Your task to perform on an android device: read, delete, or share a saved page in the chrome app Image 0: 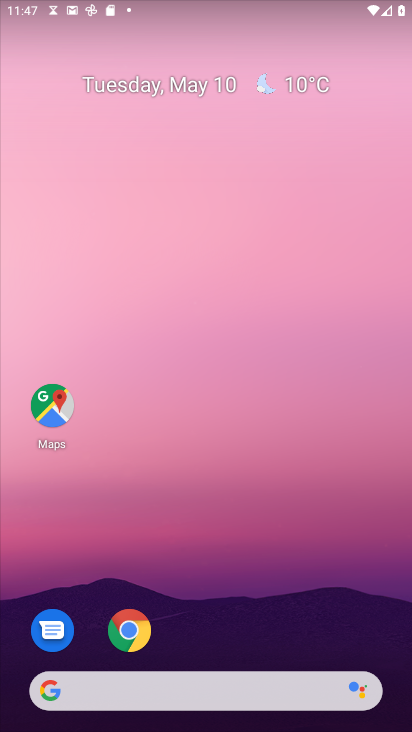
Step 0: drag from (235, 598) to (210, 26)
Your task to perform on an android device: read, delete, or share a saved page in the chrome app Image 1: 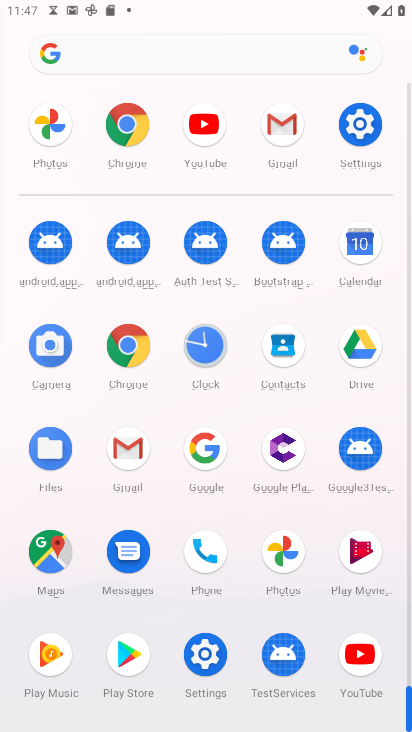
Step 1: click (123, 125)
Your task to perform on an android device: read, delete, or share a saved page in the chrome app Image 2: 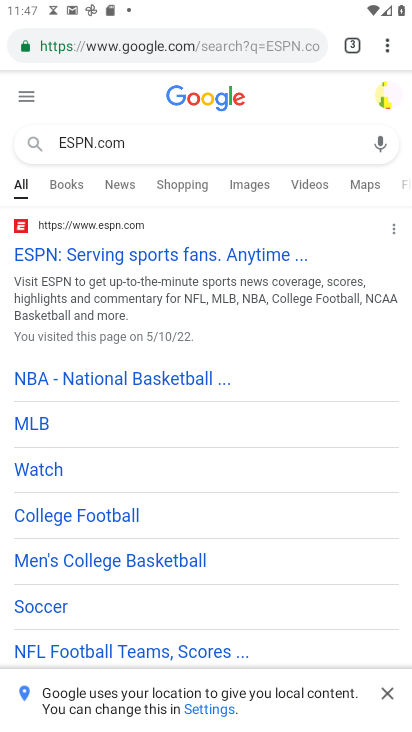
Step 2: click (390, 43)
Your task to perform on an android device: read, delete, or share a saved page in the chrome app Image 3: 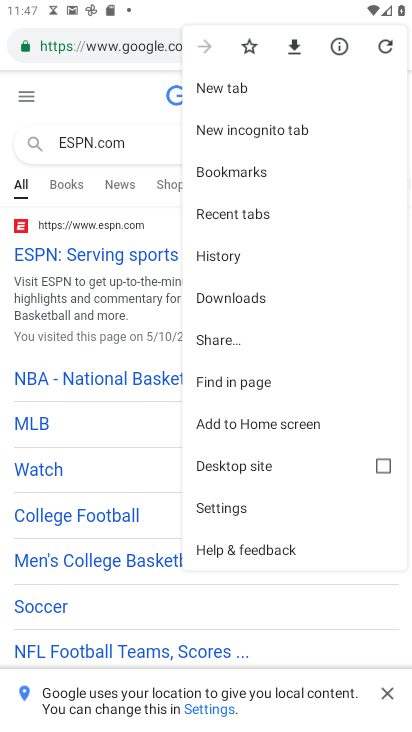
Step 3: click (241, 503)
Your task to perform on an android device: read, delete, or share a saved page in the chrome app Image 4: 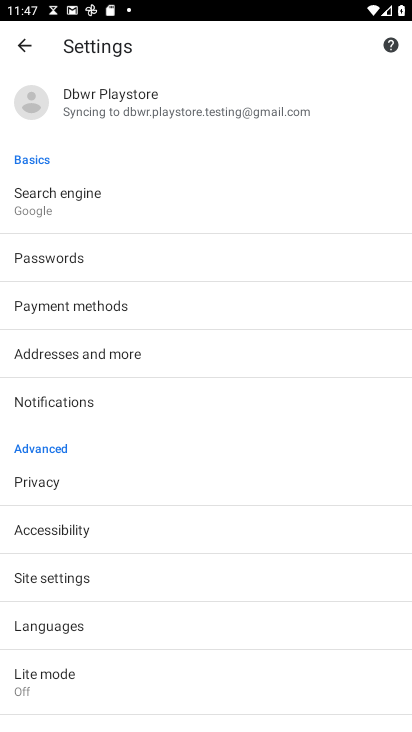
Step 4: click (22, 46)
Your task to perform on an android device: read, delete, or share a saved page in the chrome app Image 5: 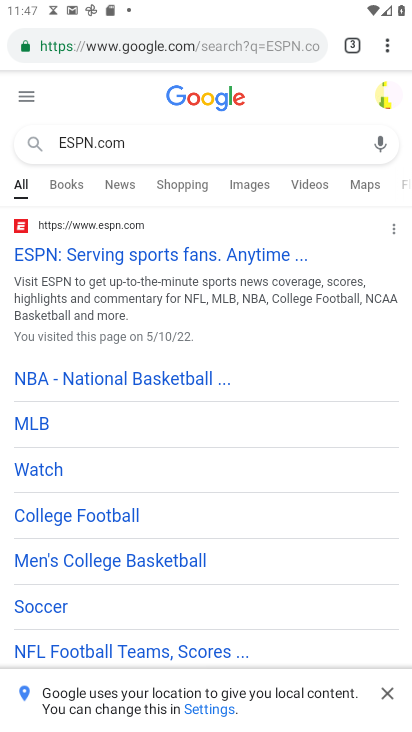
Step 5: click (395, 45)
Your task to perform on an android device: read, delete, or share a saved page in the chrome app Image 6: 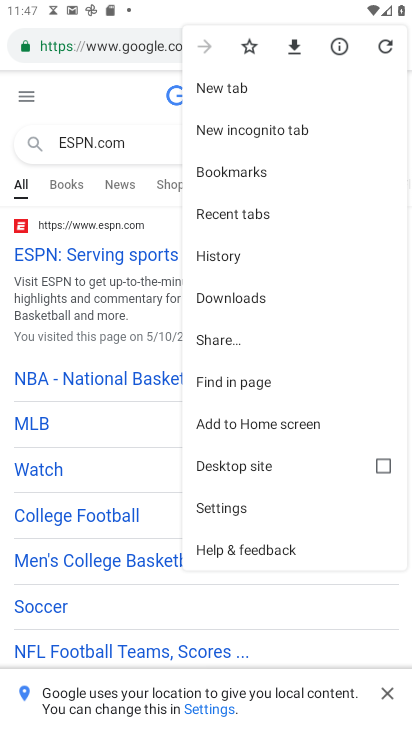
Step 6: click (216, 298)
Your task to perform on an android device: read, delete, or share a saved page in the chrome app Image 7: 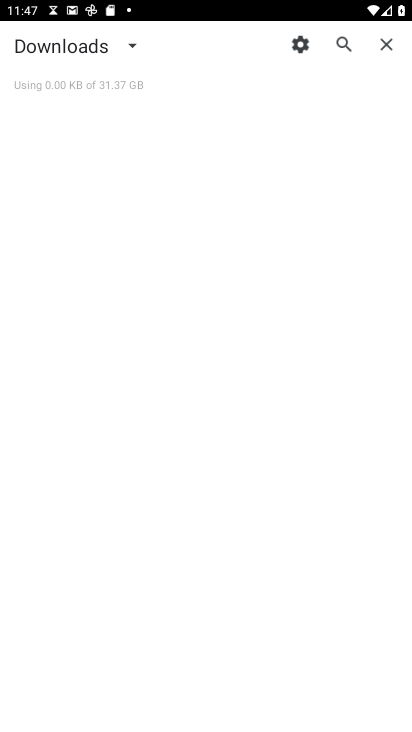
Step 7: click (99, 43)
Your task to perform on an android device: read, delete, or share a saved page in the chrome app Image 8: 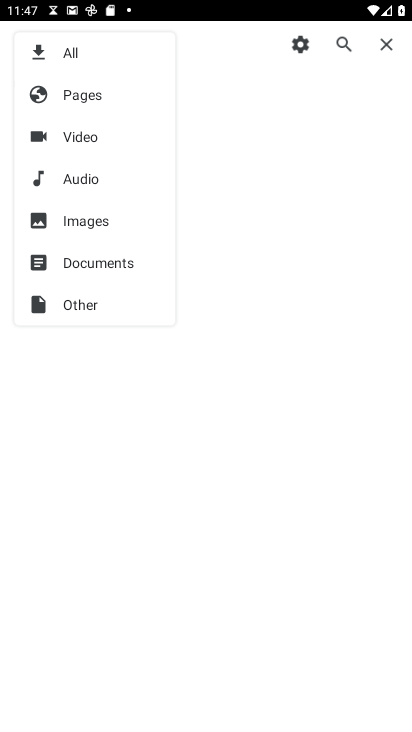
Step 8: click (100, 92)
Your task to perform on an android device: read, delete, or share a saved page in the chrome app Image 9: 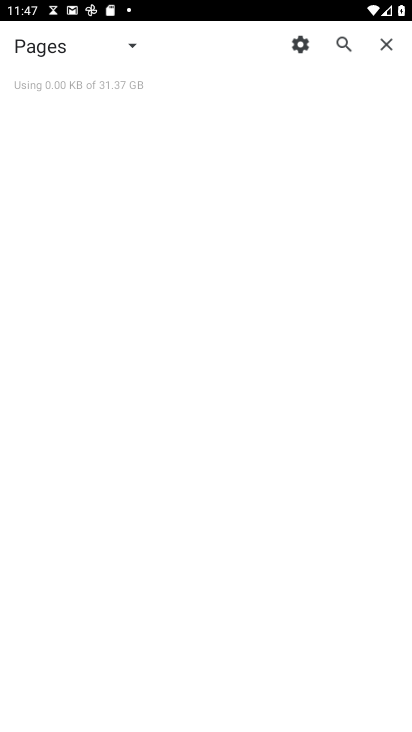
Step 9: task complete